Your task to perform on an android device: Show me recent news Image 0: 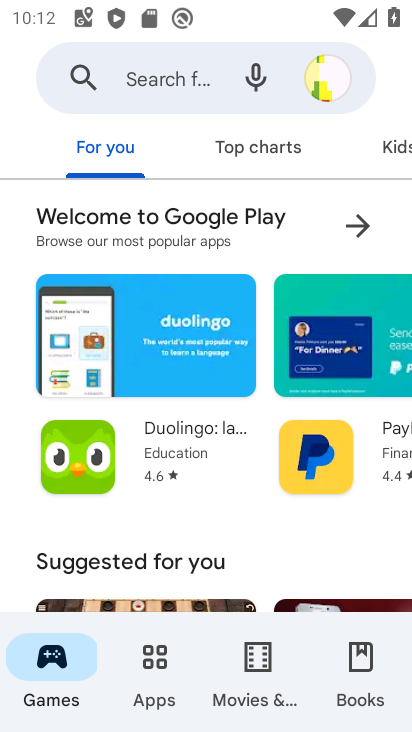
Step 0: press home button
Your task to perform on an android device: Show me recent news Image 1: 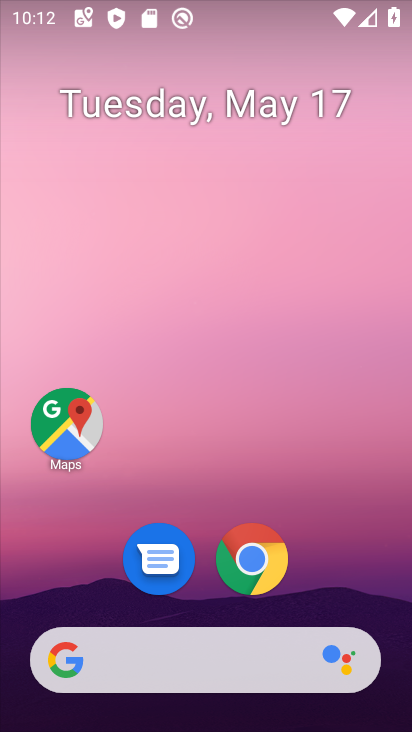
Step 1: drag from (204, 719) to (317, 186)
Your task to perform on an android device: Show me recent news Image 2: 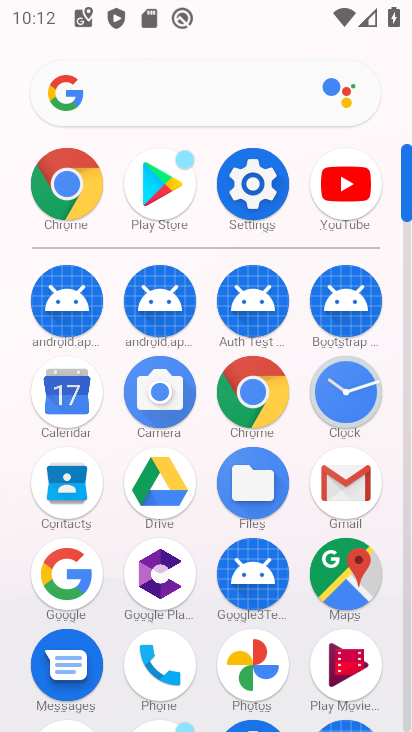
Step 2: click (190, 111)
Your task to perform on an android device: Show me recent news Image 3: 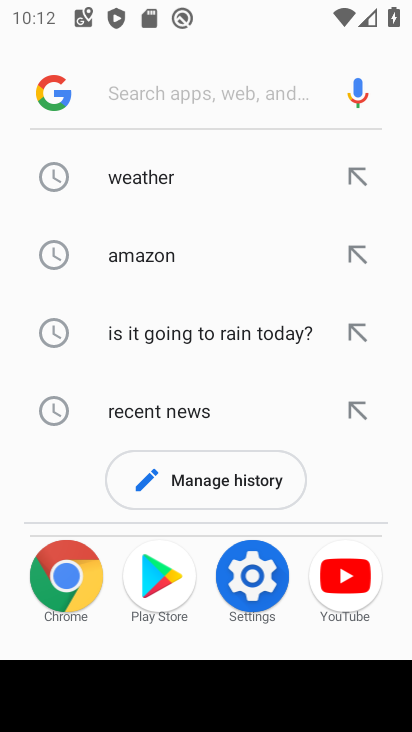
Step 3: click (171, 412)
Your task to perform on an android device: Show me recent news Image 4: 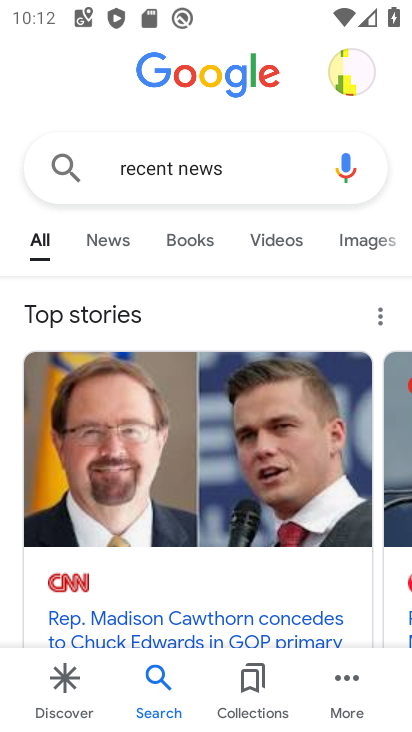
Step 4: task complete